Your task to perform on an android device: Find coffee shops on Maps Image 0: 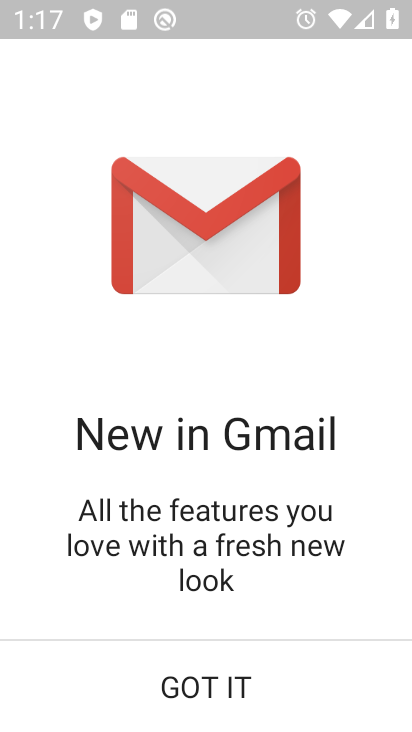
Step 0: press home button
Your task to perform on an android device: Find coffee shops on Maps Image 1: 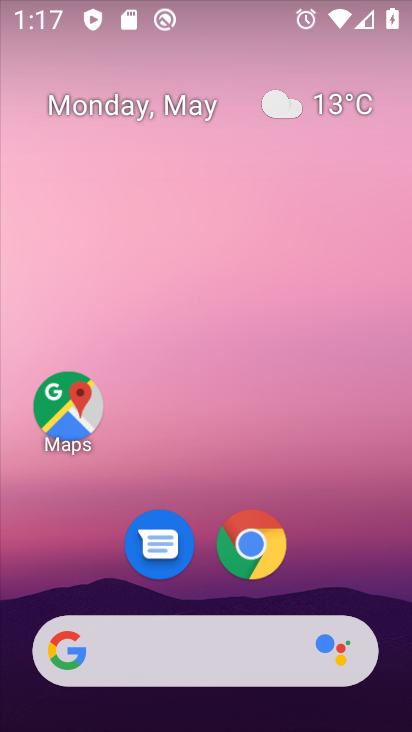
Step 1: click (71, 404)
Your task to perform on an android device: Find coffee shops on Maps Image 2: 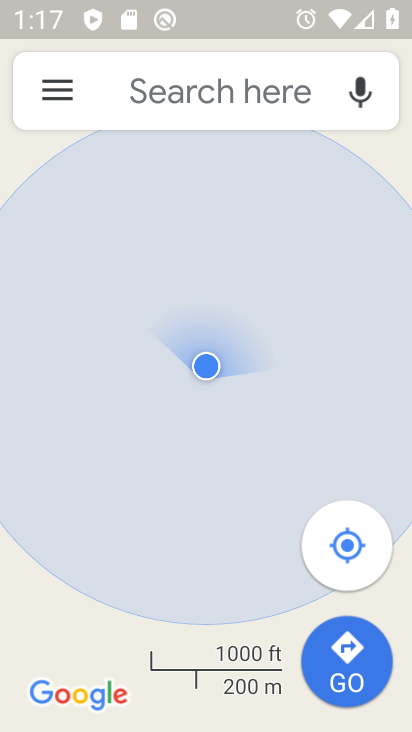
Step 2: click (164, 104)
Your task to perform on an android device: Find coffee shops on Maps Image 3: 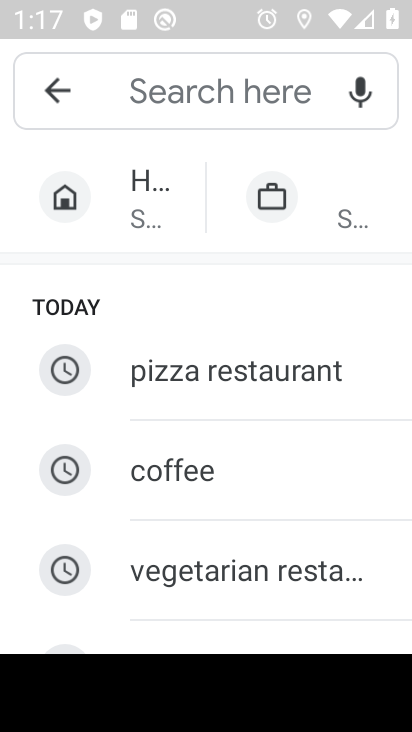
Step 3: type "coffe "
Your task to perform on an android device: Find coffee shops on Maps Image 4: 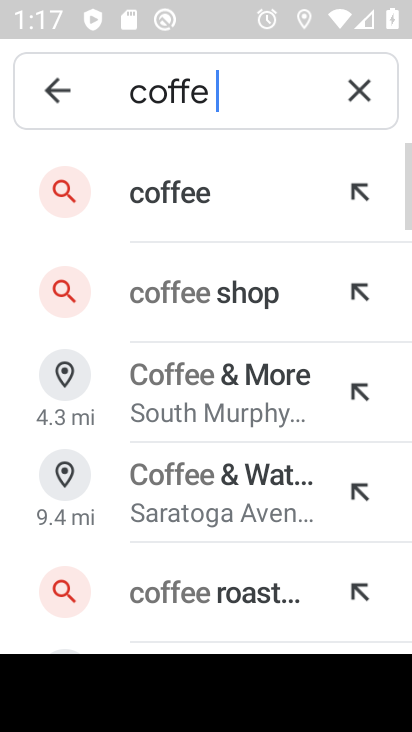
Step 4: click (190, 177)
Your task to perform on an android device: Find coffee shops on Maps Image 5: 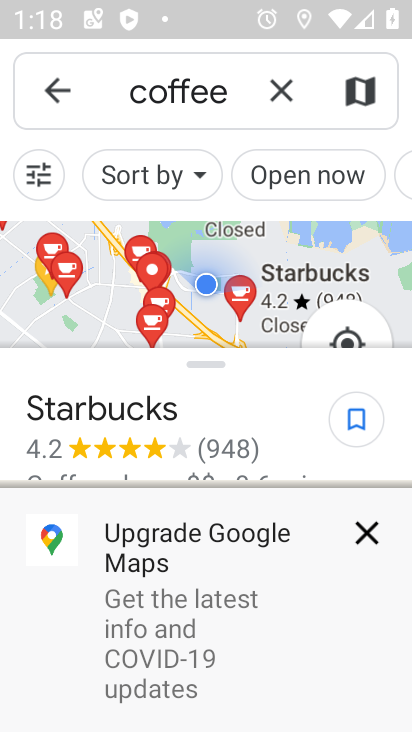
Step 5: task complete